Your task to perform on an android device: Clear the shopping cart on bestbuy. Search for "logitech g933" on bestbuy, select the first entry, add it to the cart, then select checkout. Image 0: 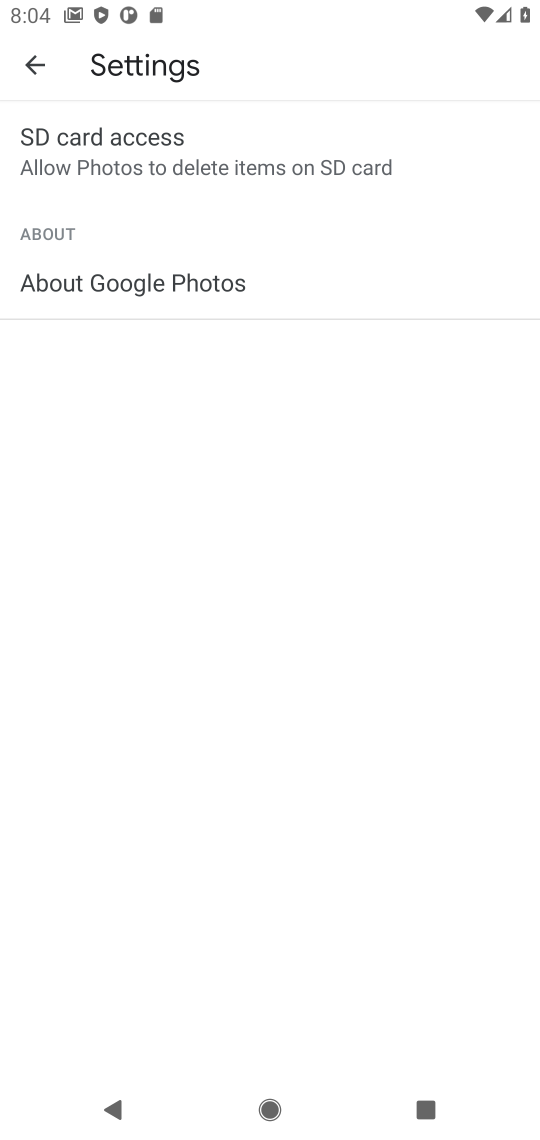
Step 0: task complete